Your task to perform on an android device: open app "HBO Max: Stream TV & Movies" (install if not already installed), go to login, and select forgot password Image 0: 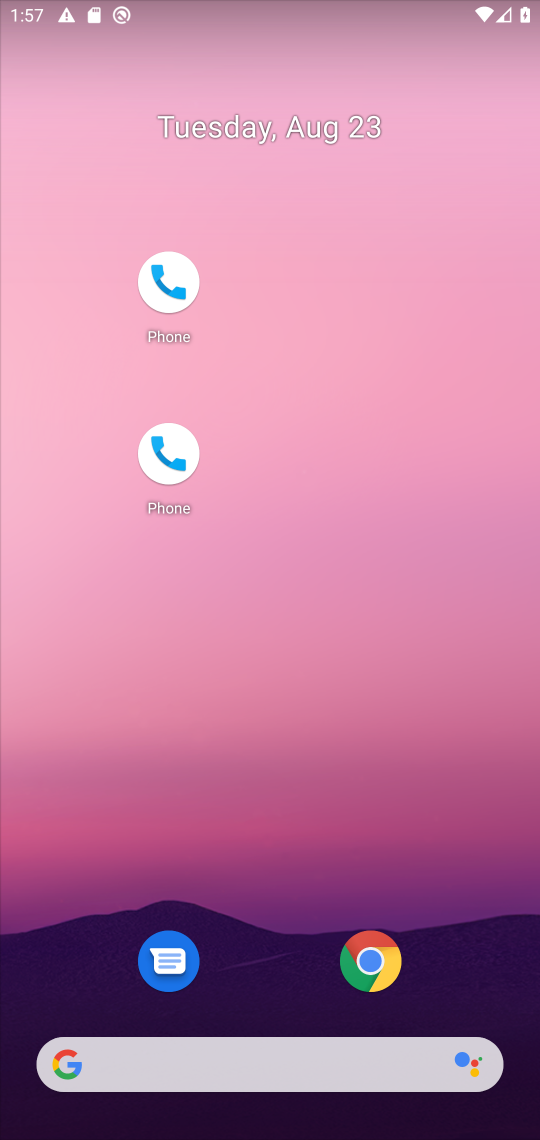
Step 0: task complete